Your task to perform on an android device: Open sound settings Image 0: 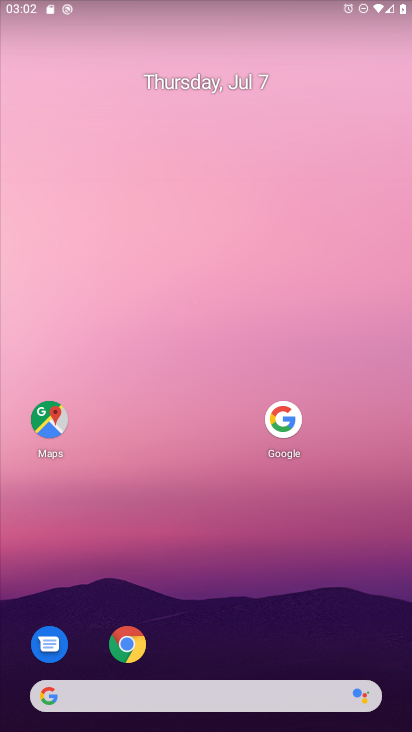
Step 0: drag from (169, 698) to (294, 183)
Your task to perform on an android device: Open sound settings Image 1: 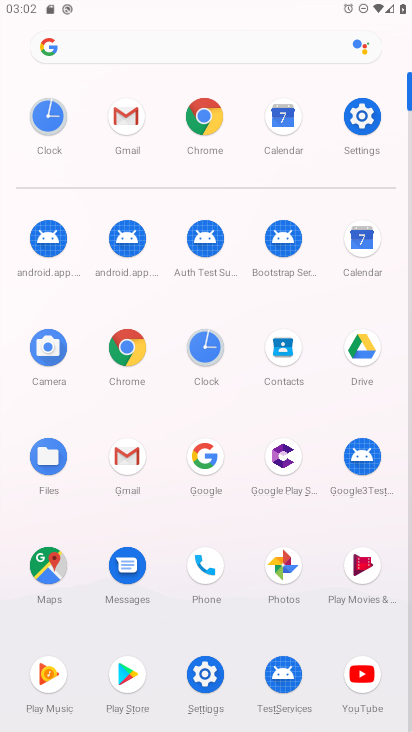
Step 1: click (355, 123)
Your task to perform on an android device: Open sound settings Image 2: 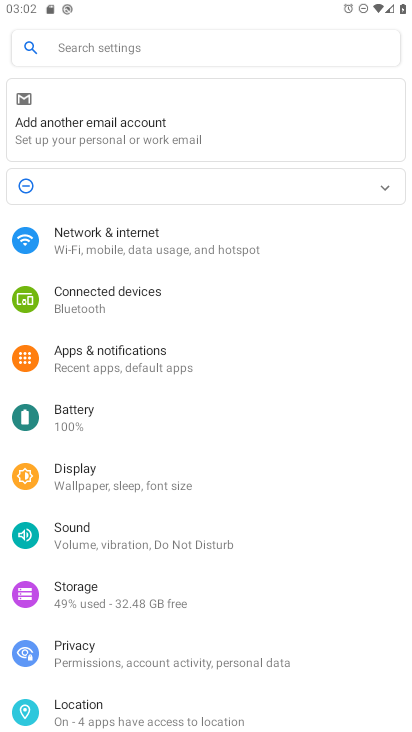
Step 2: click (89, 533)
Your task to perform on an android device: Open sound settings Image 3: 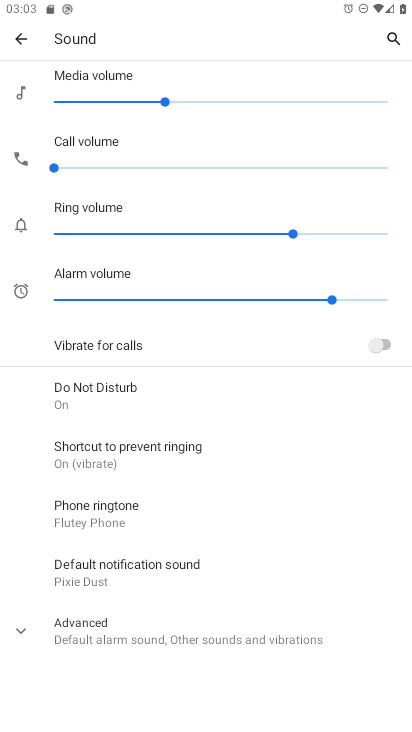
Step 3: task complete